Your task to perform on an android device: Clear the shopping cart on target. Search for dell xps on target, select the first entry, add it to the cart, then select checkout. Image 0: 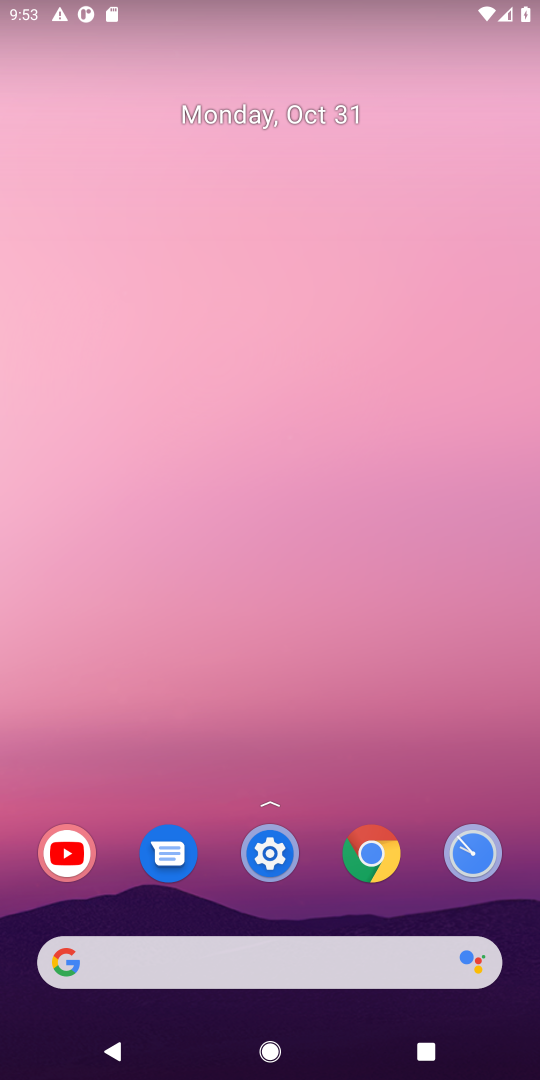
Step 0: click (206, 964)
Your task to perform on an android device: Clear the shopping cart on target. Search for dell xps on target, select the first entry, add it to the cart, then select checkout. Image 1: 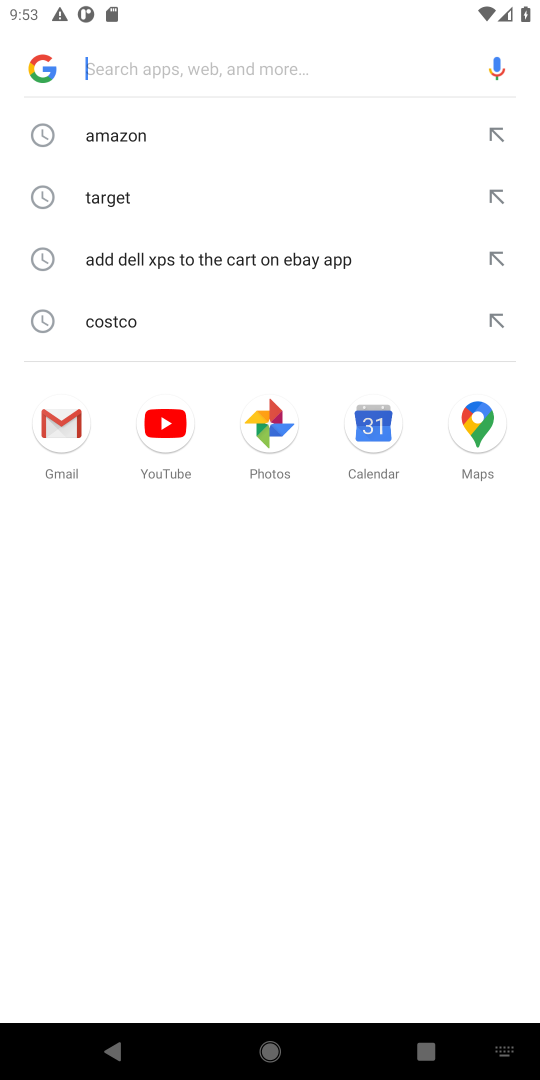
Step 1: click (106, 197)
Your task to perform on an android device: Clear the shopping cart on target. Search for dell xps on target, select the first entry, add it to the cart, then select checkout. Image 2: 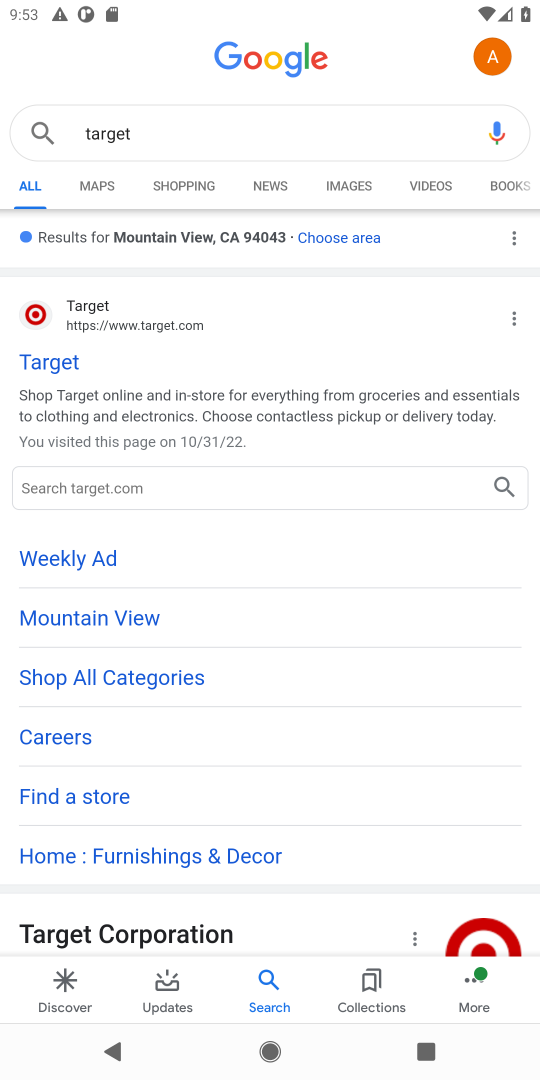
Step 2: click (61, 353)
Your task to perform on an android device: Clear the shopping cart on target. Search for dell xps on target, select the first entry, add it to the cart, then select checkout. Image 3: 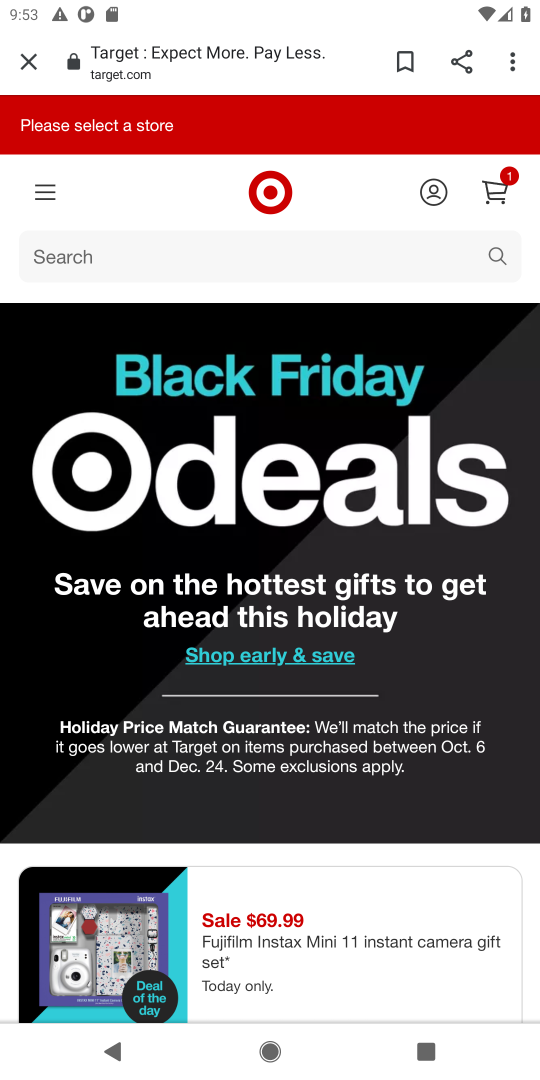
Step 3: click (496, 184)
Your task to perform on an android device: Clear the shopping cart on target. Search for dell xps on target, select the first entry, add it to the cart, then select checkout. Image 4: 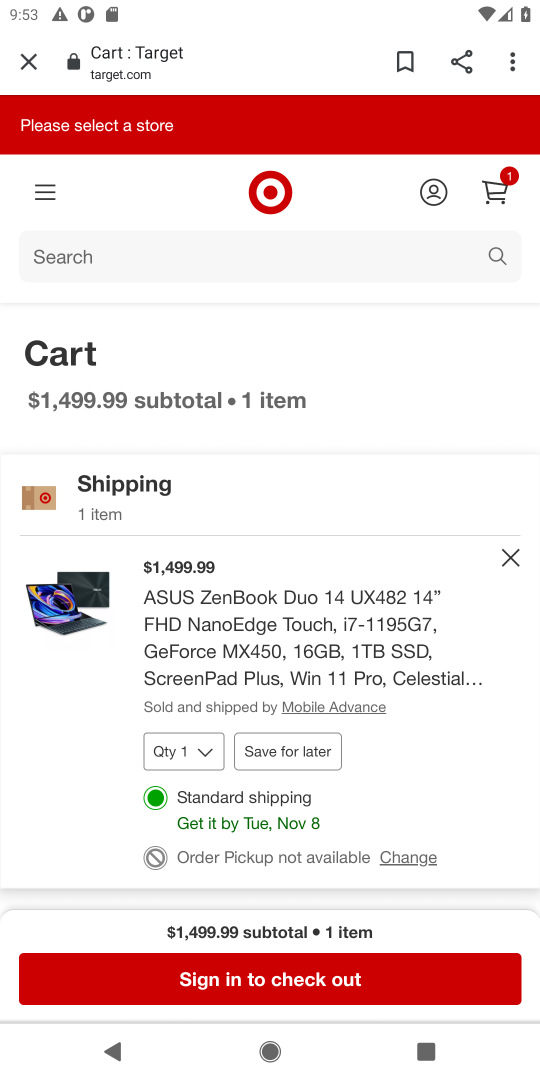
Step 4: click (504, 552)
Your task to perform on an android device: Clear the shopping cart on target. Search for dell xps on target, select the first entry, add it to the cart, then select checkout. Image 5: 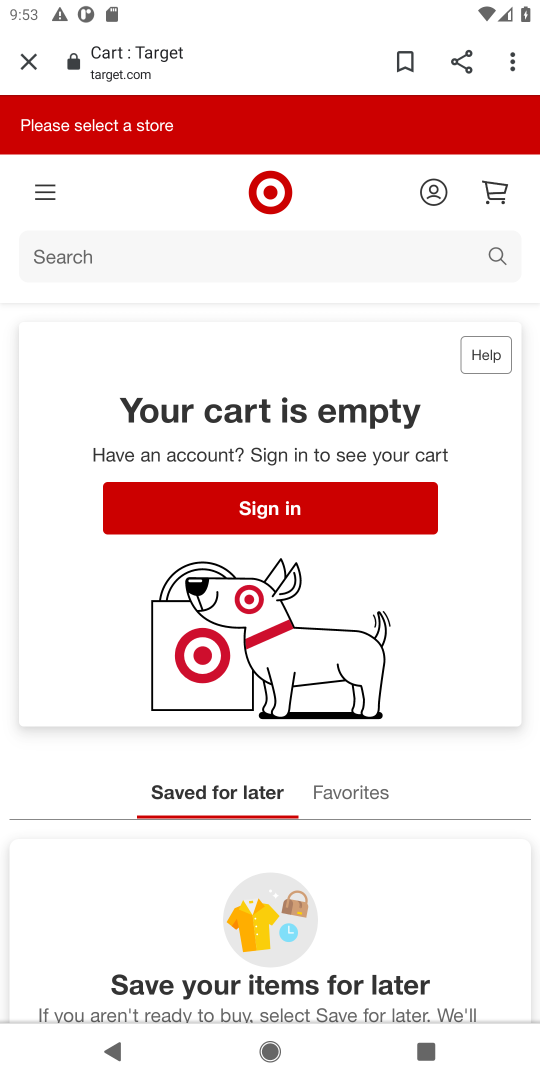
Step 5: click (213, 260)
Your task to perform on an android device: Clear the shopping cart on target. Search for dell xps on target, select the first entry, add it to the cart, then select checkout. Image 6: 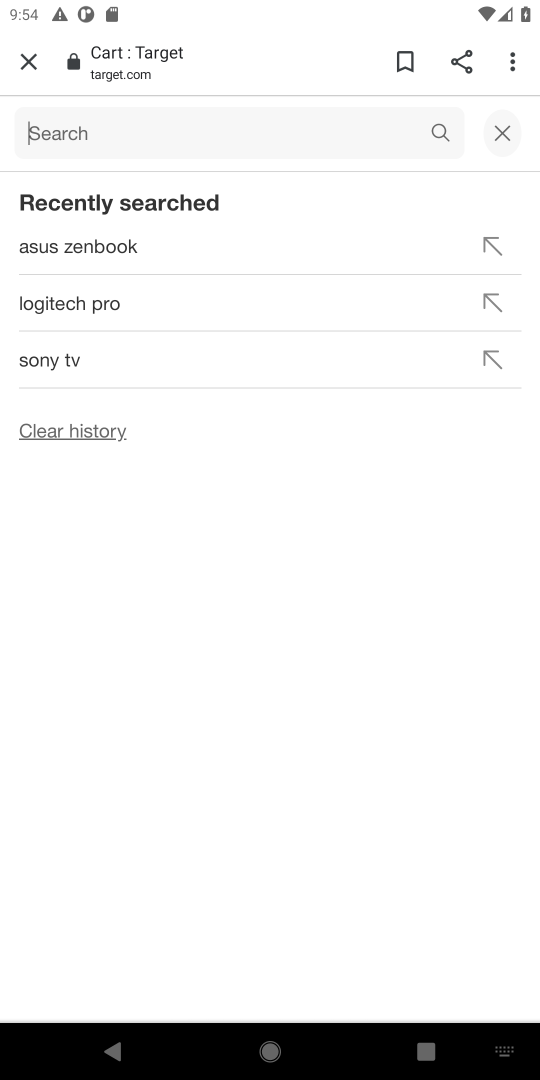
Step 6: type "dell xps"
Your task to perform on an android device: Clear the shopping cart on target. Search for dell xps on target, select the first entry, add it to the cart, then select checkout. Image 7: 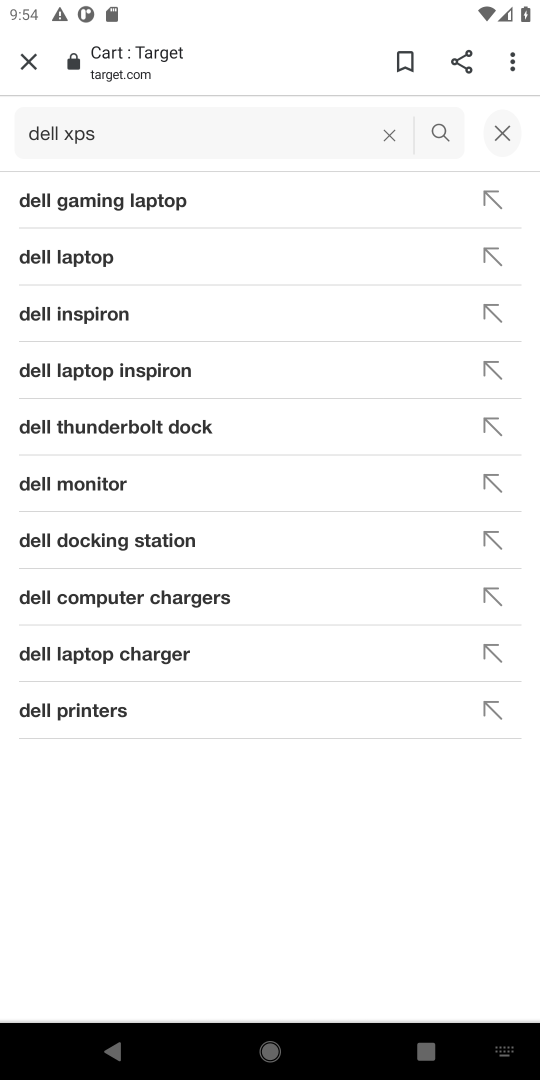
Step 7: click (437, 134)
Your task to perform on an android device: Clear the shopping cart on target. Search for dell xps on target, select the first entry, add it to the cart, then select checkout. Image 8: 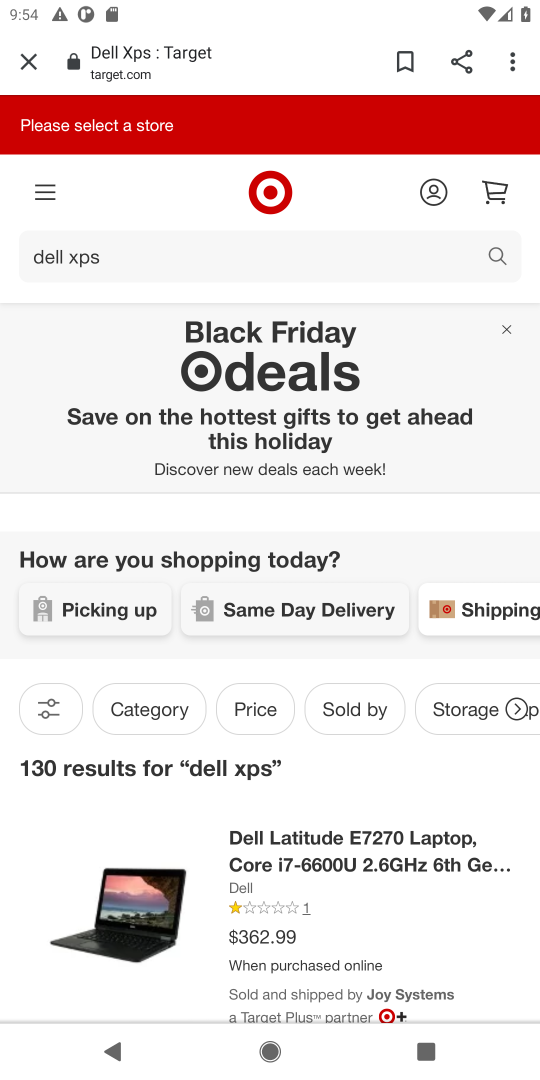
Step 8: drag from (391, 782) to (333, 514)
Your task to perform on an android device: Clear the shopping cart on target. Search for dell xps on target, select the first entry, add it to the cart, then select checkout. Image 9: 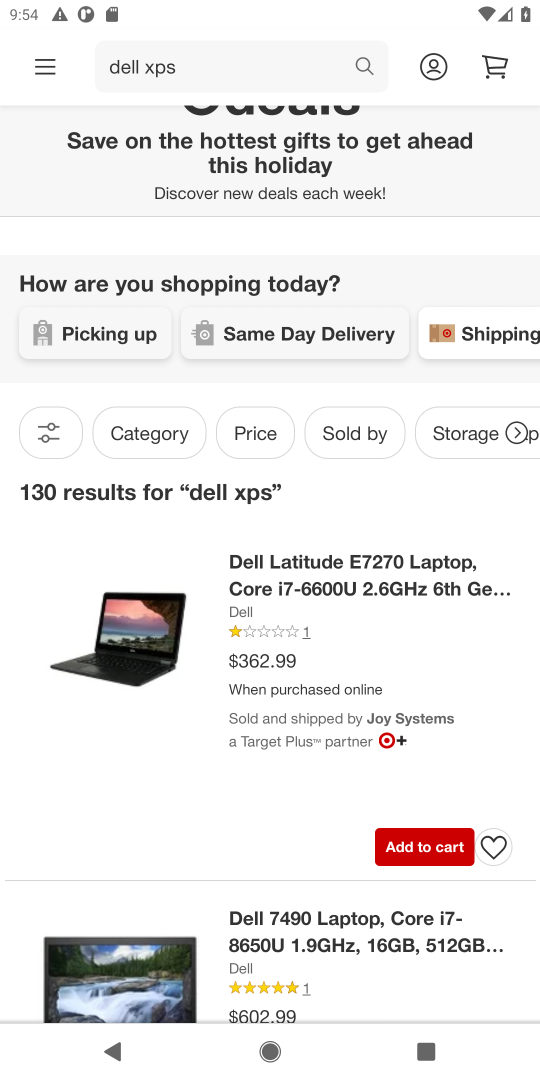
Step 9: click (404, 845)
Your task to perform on an android device: Clear the shopping cart on target. Search for dell xps on target, select the first entry, add it to the cart, then select checkout. Image 10: 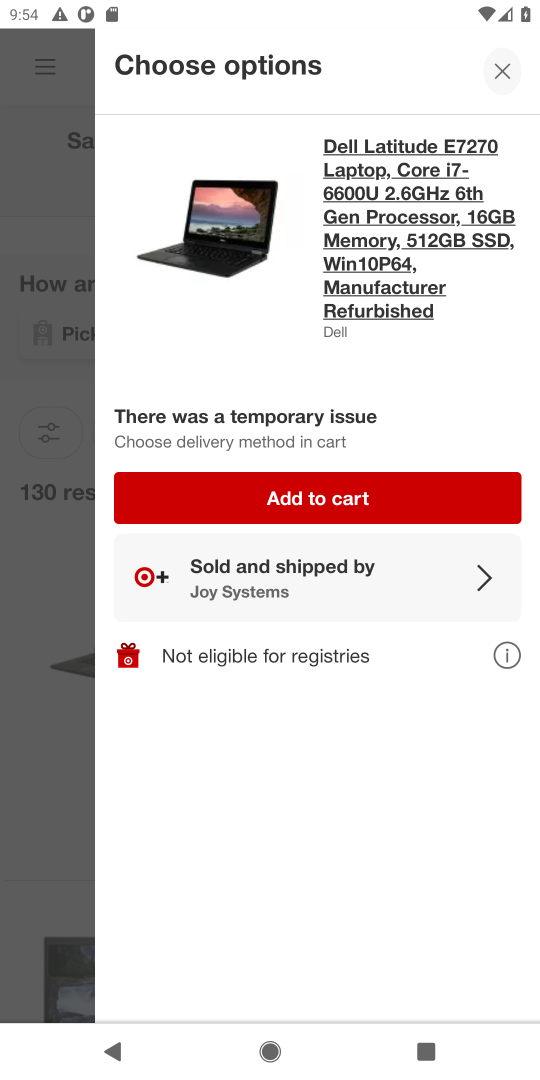
Step 10: click (355, 500)
Your task to perform on an android device: Clear the shopping cart on target. Search for dell xps on target, select the first entry, add it to the cart, then select checkout. Image 11: 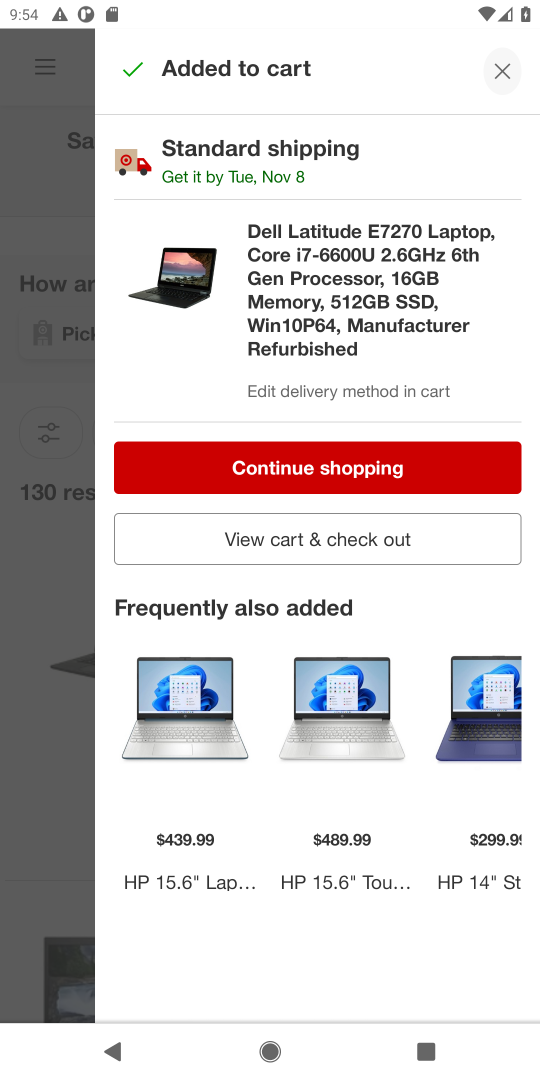
Step 11: click (347, 534)
Your task to perform on an android device: Clear the shopping cart on target. Search for dell xps on target, select the first entry, add it to the cart, then select checkout. Image 12: 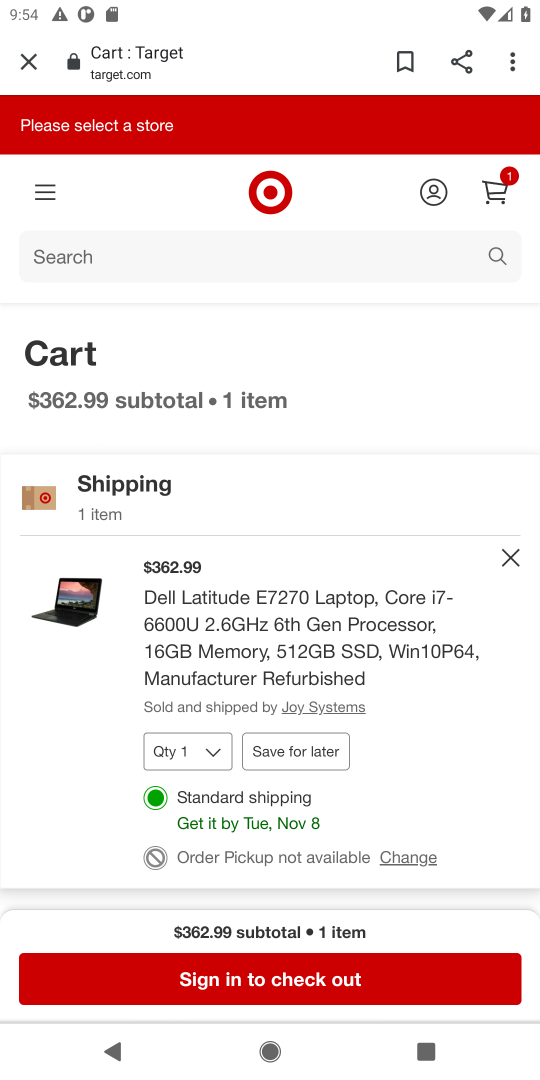
Step 12: click (263, 986)
Your task to perform on an android device: Clear the shopping cart on target. Search for dell xps on target, select the first entry, add it to the cart, then select checkout. Image 13: 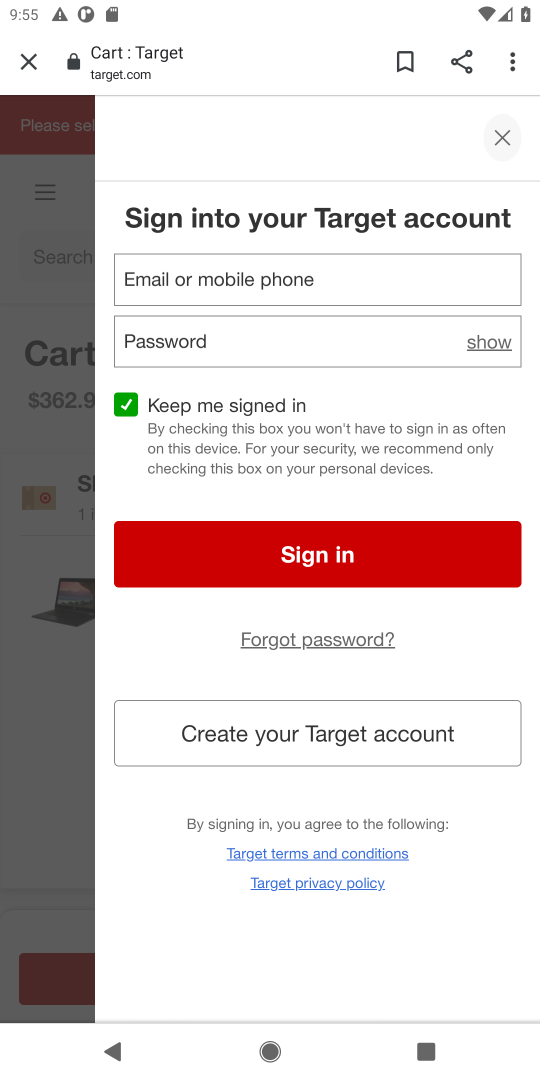
Step 13: task complete